Your task to perform on an android device: Clear the shopping cart on bestbuy.com. Image 0: 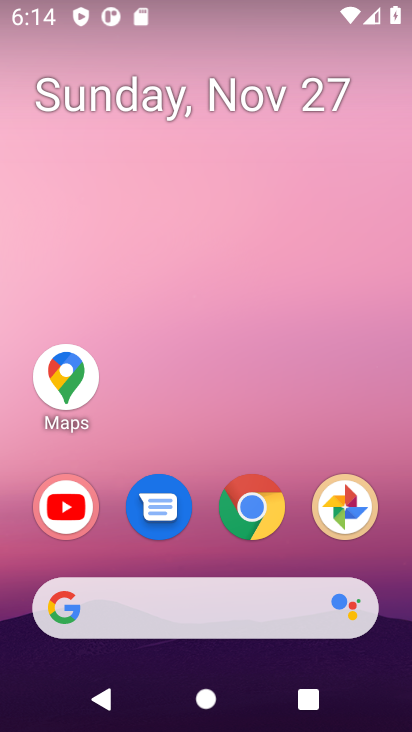
Step 0: click (258, 509)
Your task to perform on an android device: Clear the shopping cart on bestbuy.com. Image 1: 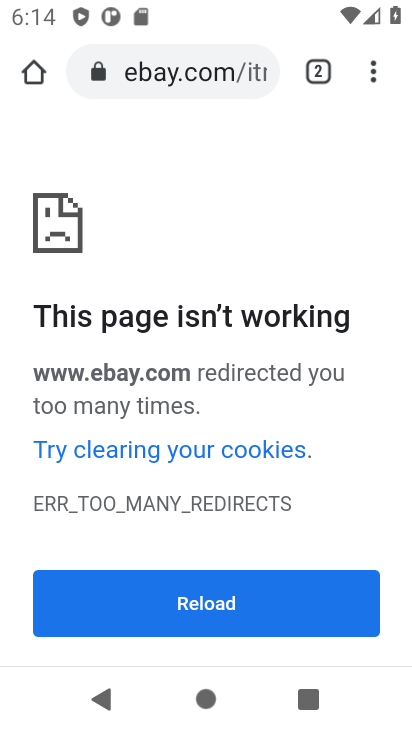
Step 1: click (176, 73)
Your task to perform on an android device: Clear the shopping cart on bestbuy.com. Image 2: 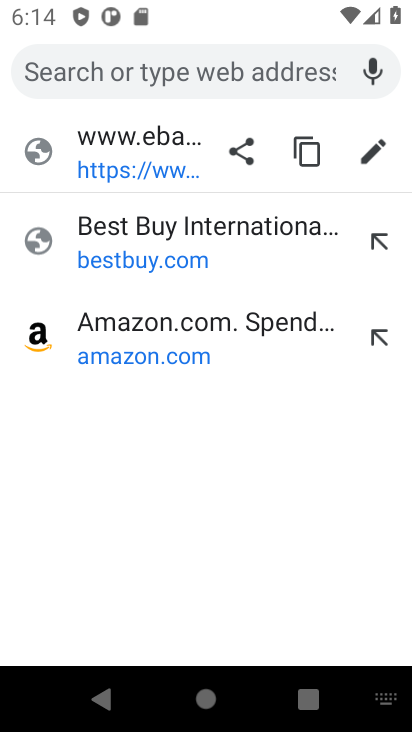
Step 2: type "bestbuy.com"
Your task to perform on an android device: Clear the shopping cart on bestbuy.com. Image 3: 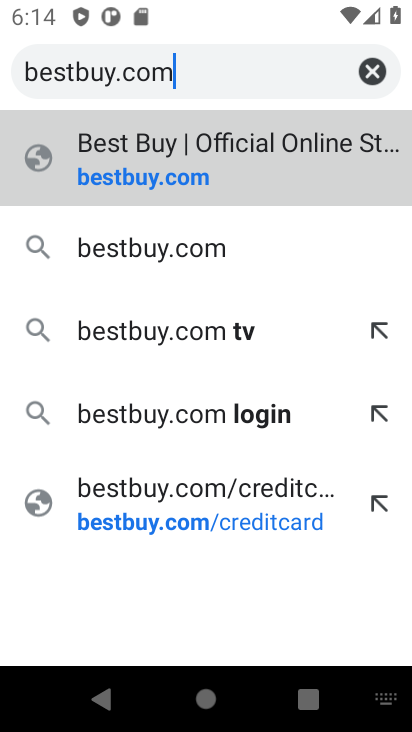
Step 3: click (155, 155)
Your task to perform on an android device: Clear the shopping cart on bestbuy.com. Image 4: 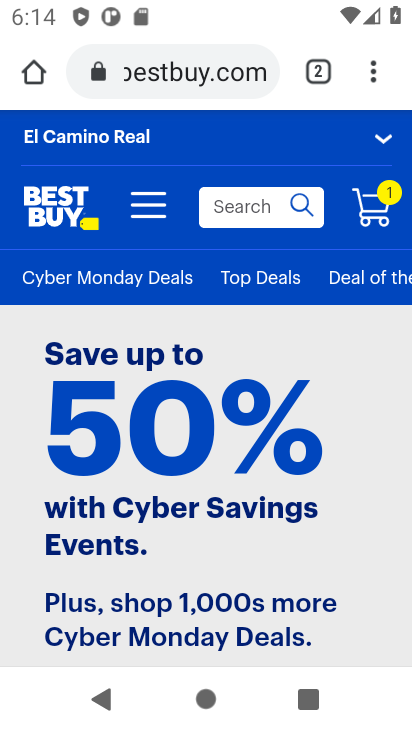
Step 4: click (367, 203)
Your task to perform on an android device: Clear the shopping cart on bestbuy.com. Image 5: 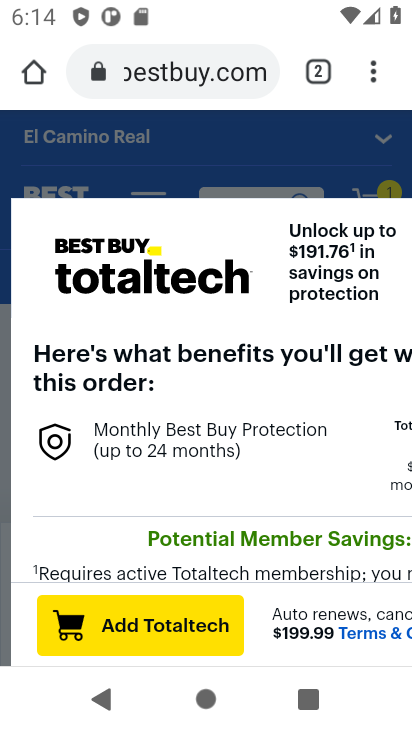
Step 5: click (160, 633)
Your task to perform on an android device: Clear the shopping cart on bestbuy.com. Image 6: 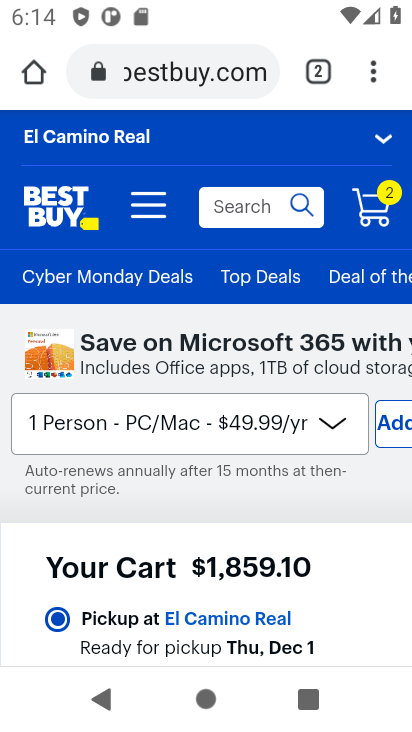
Step 6: drag from (258, 563) to (292, 271)
Your task to perform on an android device: Clear the shopping cart on bestbuy.com. Image 7: 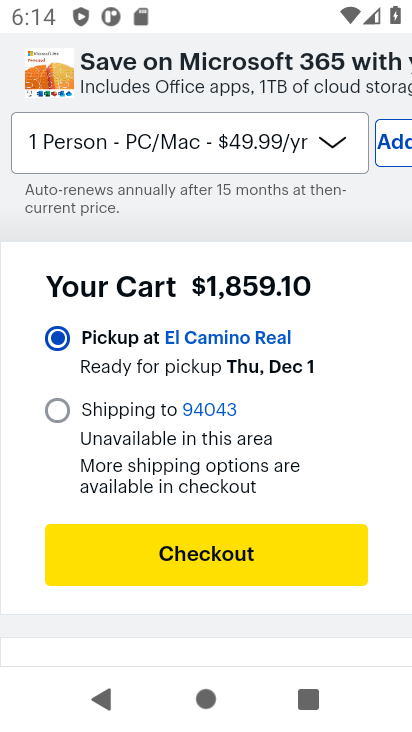
Step 7: drag from (266, 492) to (311, 126)
Your task to perform on an android device: Clear the shopping cart on bestbuy.com. Image 8: 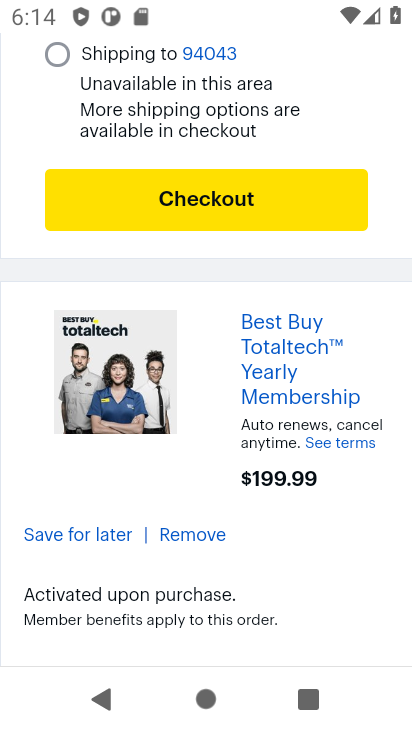
Step 8: drag from (219, 567) to (216, 387)
Your task to perform on an android device: Clear the shopping cart on bestbuy.com. Image 9: 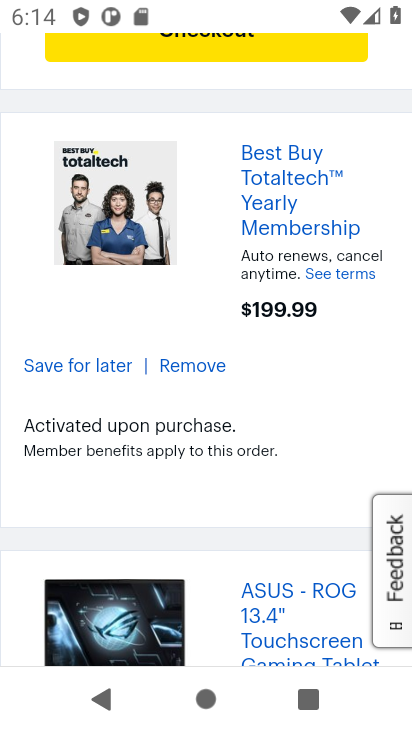
Step 9: drag from (219, 583) to (239, 319)
Your task to perform on an android device: Clear the shopping cart on bestbuy.com. Image 10: 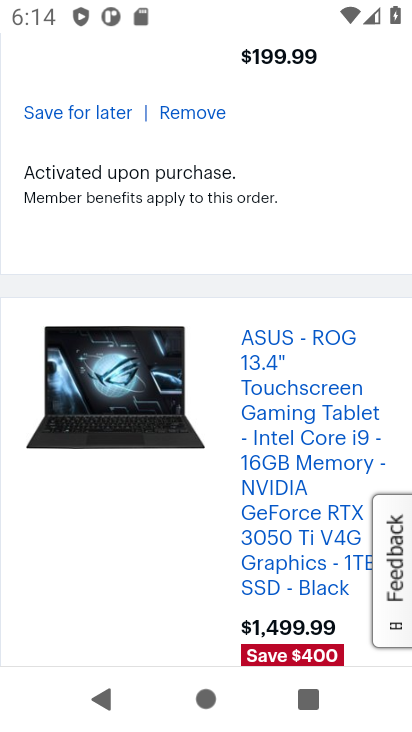
Step 10: drag from (240, 524) to (257, 213)
Your task to perform on an android device: Clear the shopping cart on bestbuy.com. Image 11: 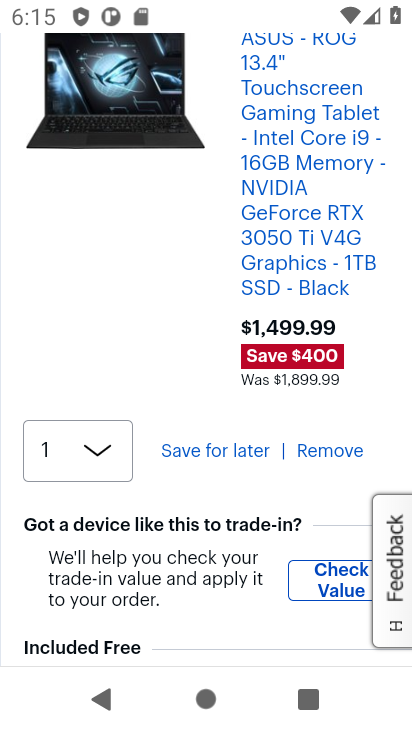
Step 11: click (340, 450)
Your task to perform on an android device: Clear the shopping cart on bestbuy.com. Image 12: 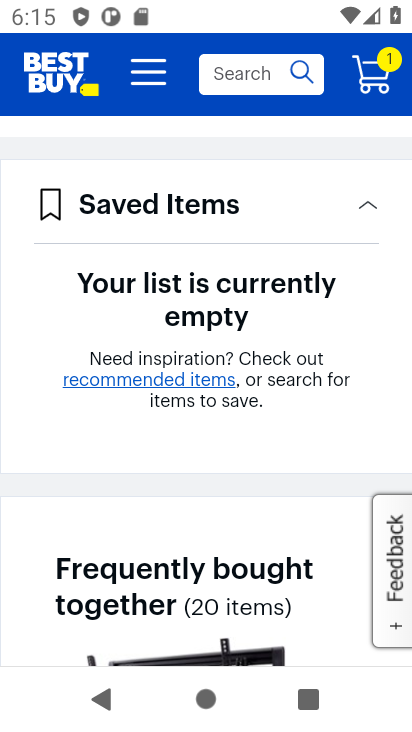
Step 12: task complete